Your task to perform on an android device: Clear all items from cart on costco.com. Image 0: 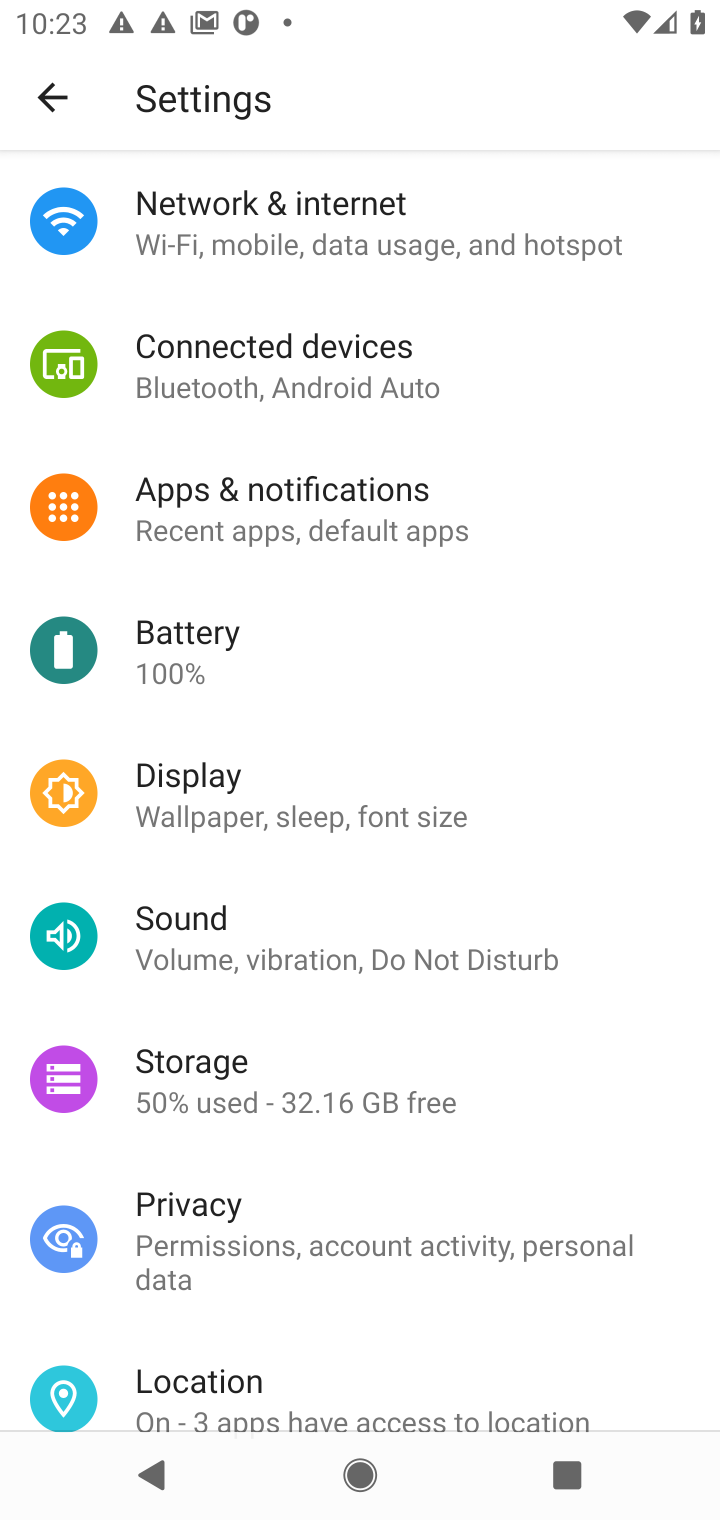
Step 0: press home button
Your task to perform on an android device: Clear all items from cart on costco.com. Image 1: 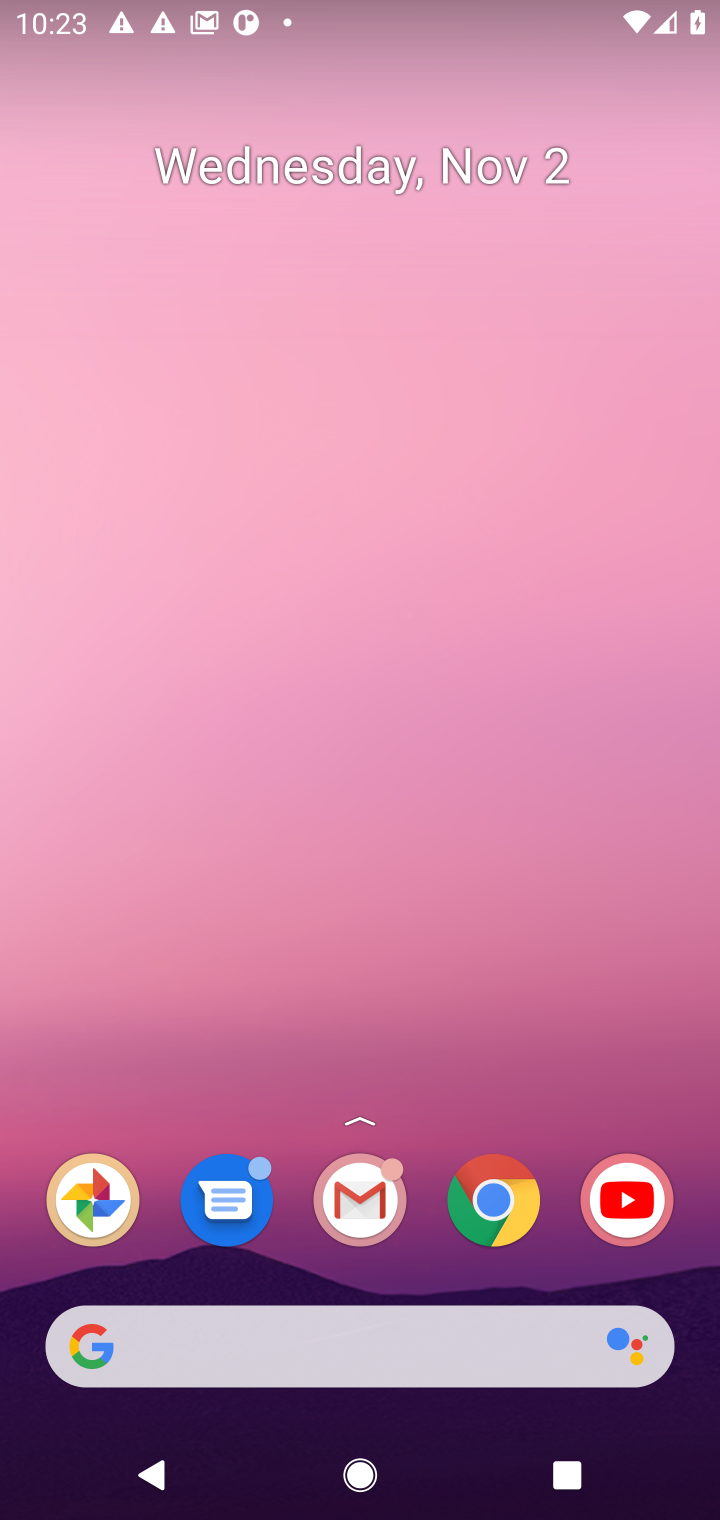
Step 1: click (510, 1210)
Your task to perform on an android device: Clear all items from cart on costco.com. Image 2: 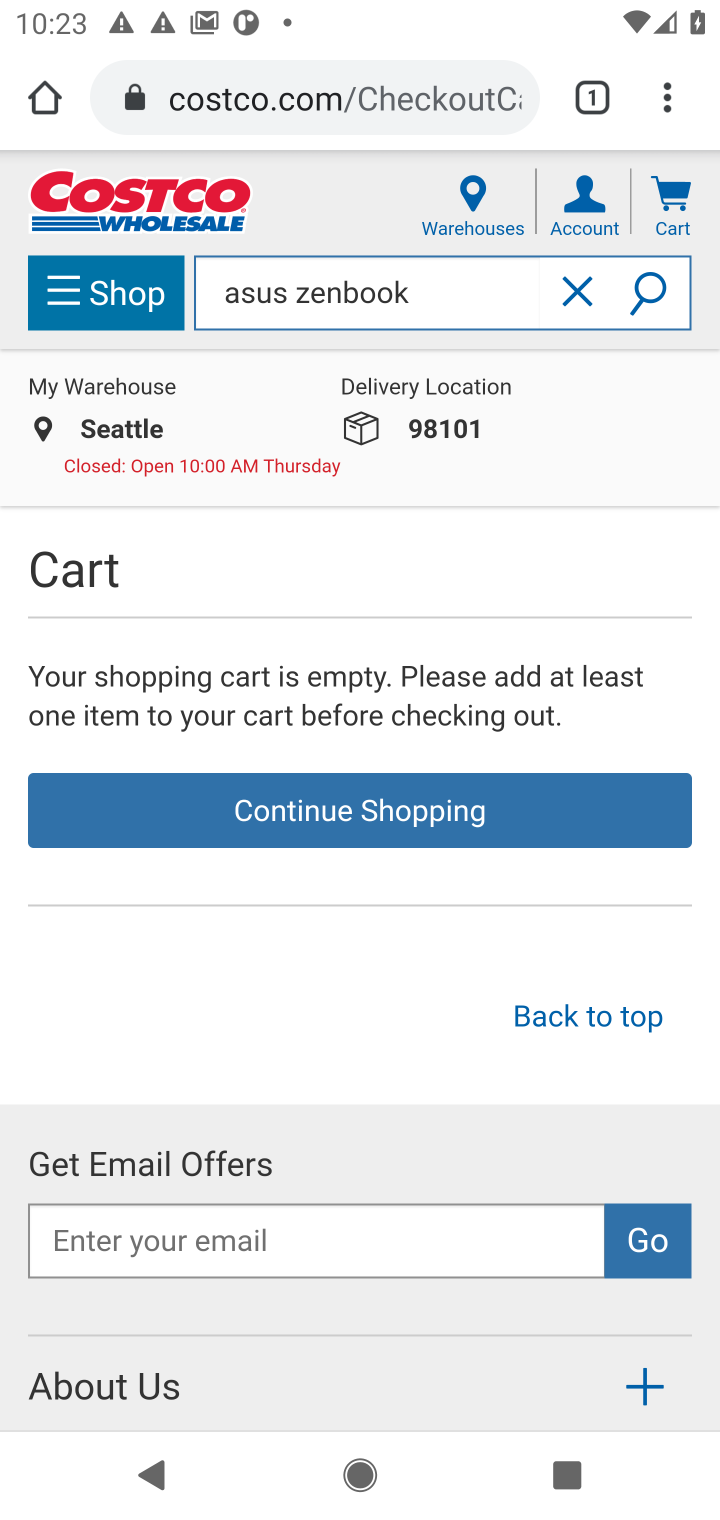
Step 2: click (661, 207)
Your task to perform on an android device: Clear all items from cart on costco.com. Image 3: 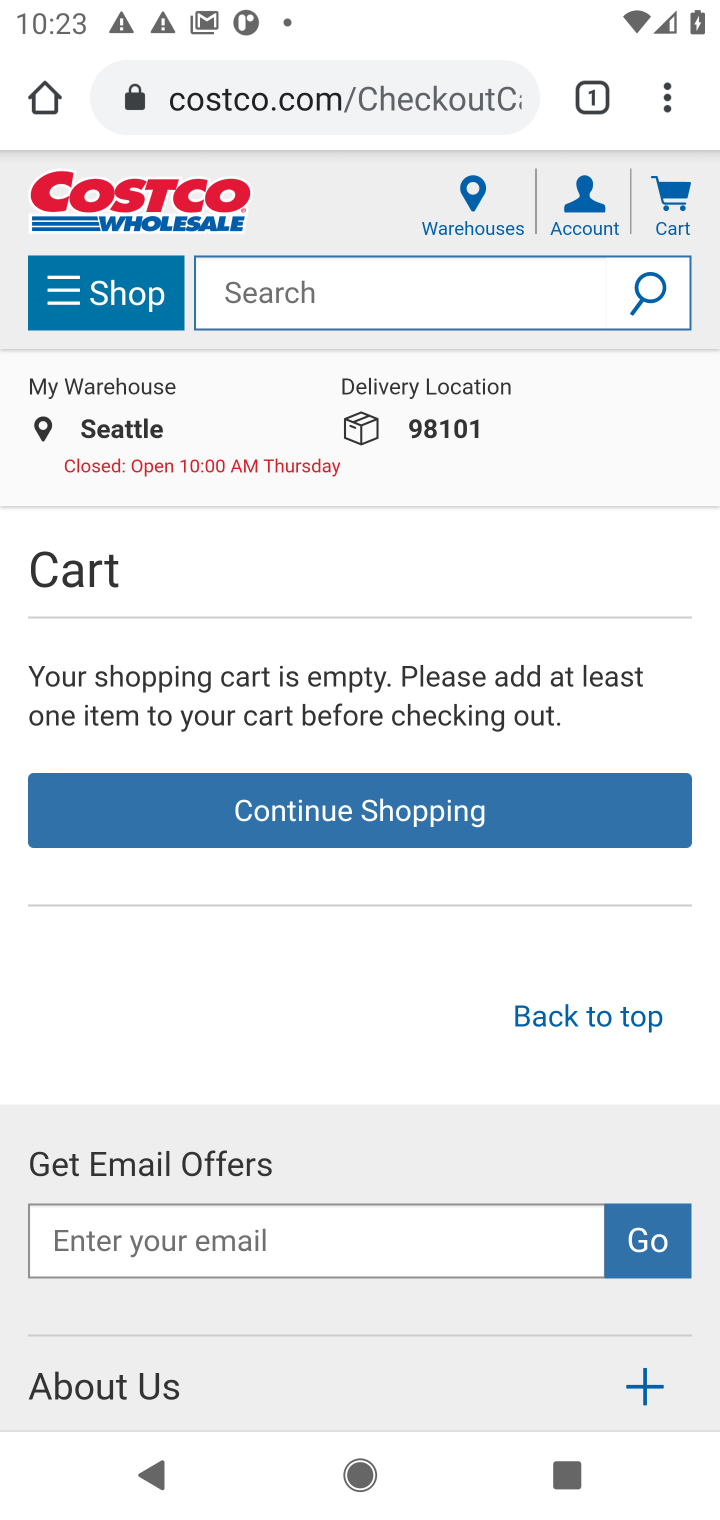
Step 3: task complete